Your task to perform on an android device: Open sound settings Image 0: 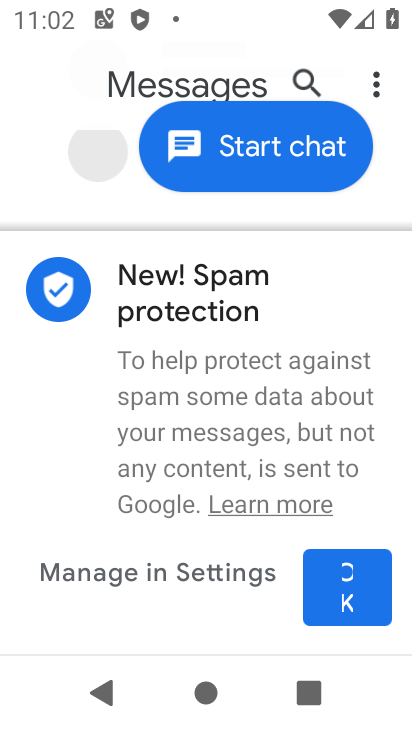
Step 0: press home button
Your task to perform on an android device: Open sound settings Image 1: 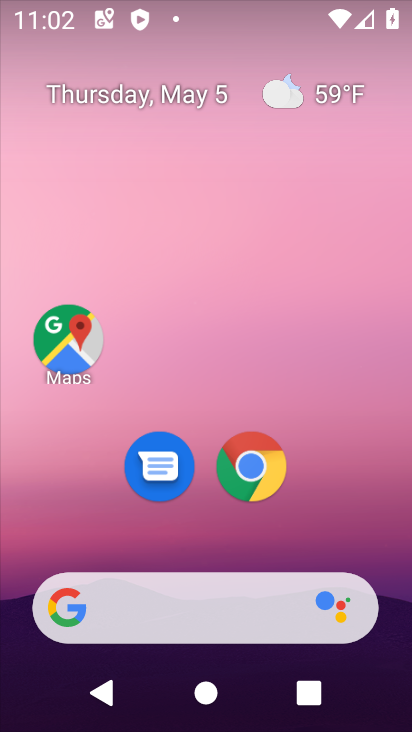
Step 1: drag from (354, 477) to (279, 0)
Your task to perform on an android device: Open sound settings Image 2: 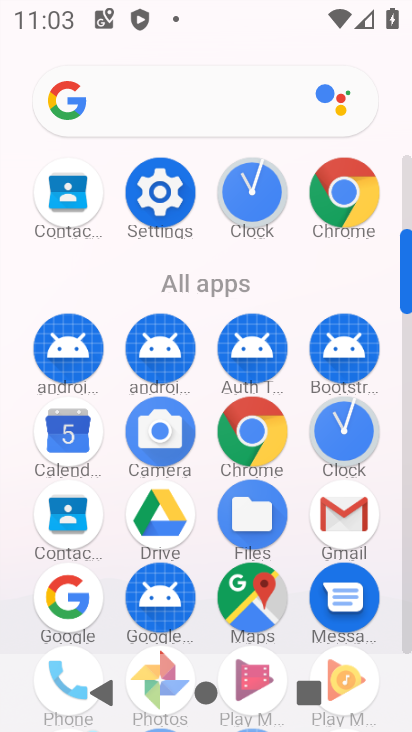
Step 2: click (175, 241)
Your task to perform on an android device: Open sound settings Image 3: 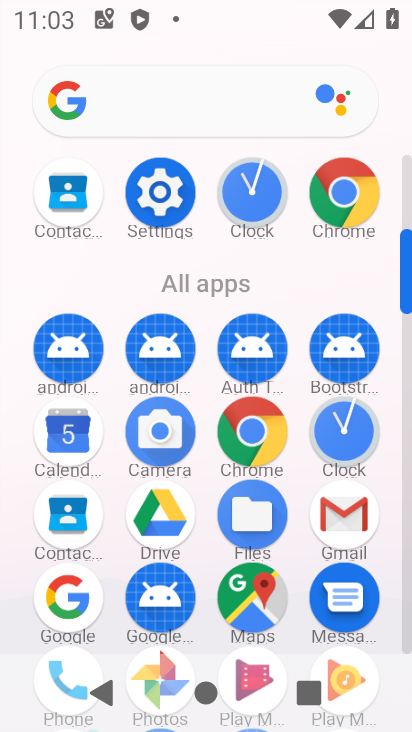
Step 3: click (175, 226)
Your task to perform on an android device: Open sound settings Image 4: 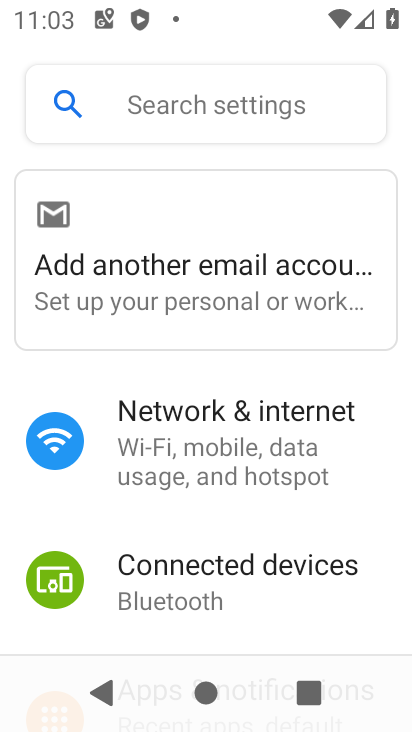
Step 4: drag from (216, 520) to (225, 48)
Your task to perform on an android device: Open sound settings Image 5: 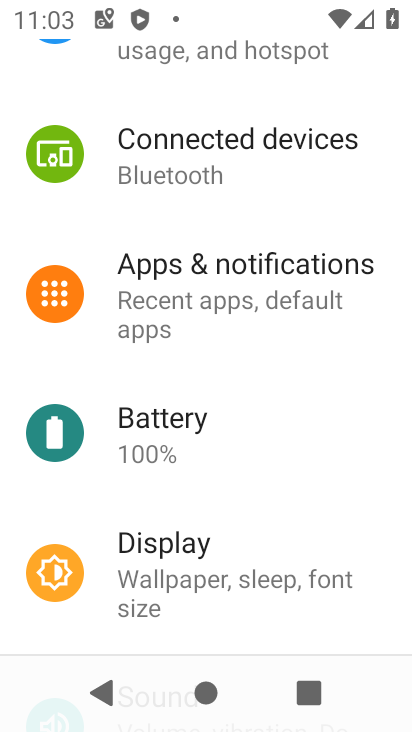
Step 5: drag from (238, 528) to (200, 89)
Your task to perform on an android device: Open sound settings Image 6: 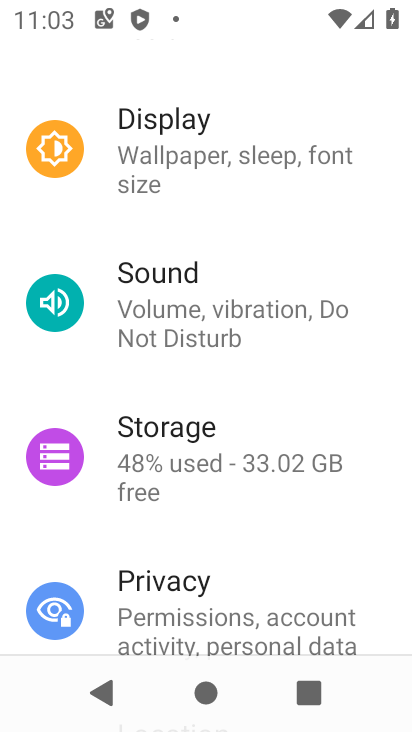
Step 6: drag from (176, 558) to (183, 155)
Your task to perform on an android device: Open sound settings Image 7: 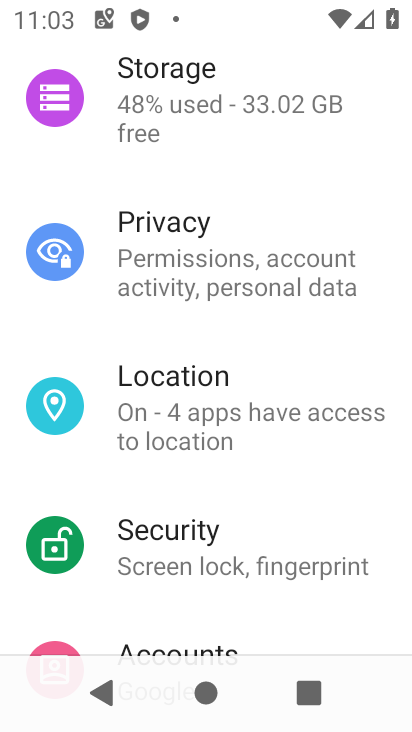
Step 7: drag from (199, 676) to (247, 86)
Your task to perform on an android device: Open sound settings Image 8: 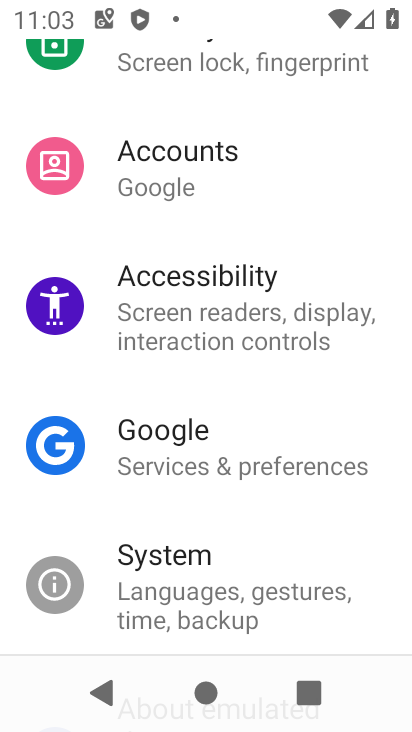
Step 8: drag from (222, 160) to (176, 699)
Your task to perform on an android device: Open sound settings Image 9: 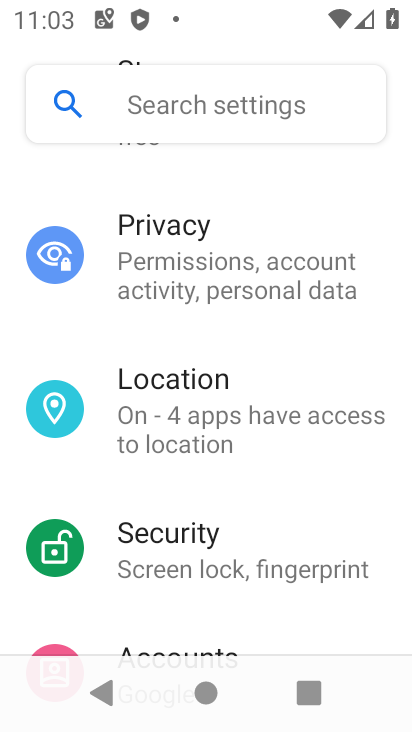
Step 9: drag from (158, 249) to (137, 552)
Your task to perform on an android device: Open sound settings Image 10: 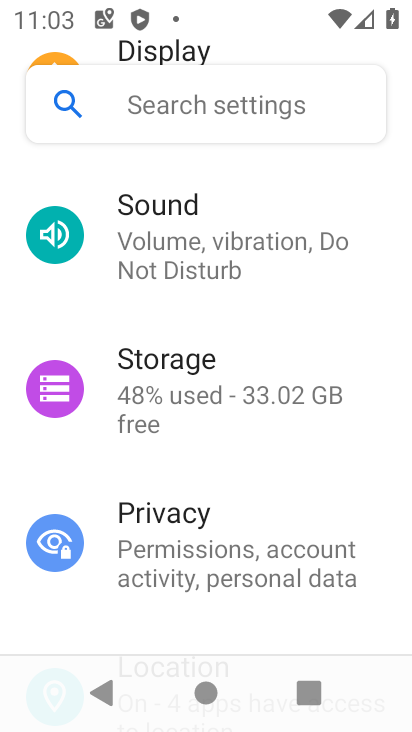
Step 10: click (145, 227)
Your task to perform on an android device: Open sound settings Image 11: 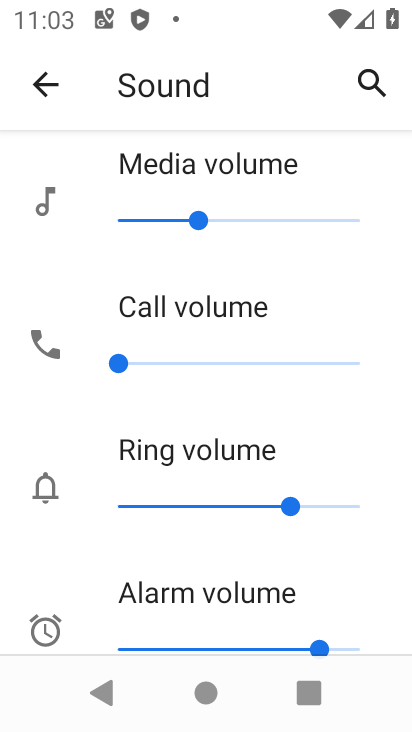
Step 11: task complete